Your task to perform on an android device: toggle pop-ups in chrome Image 0: 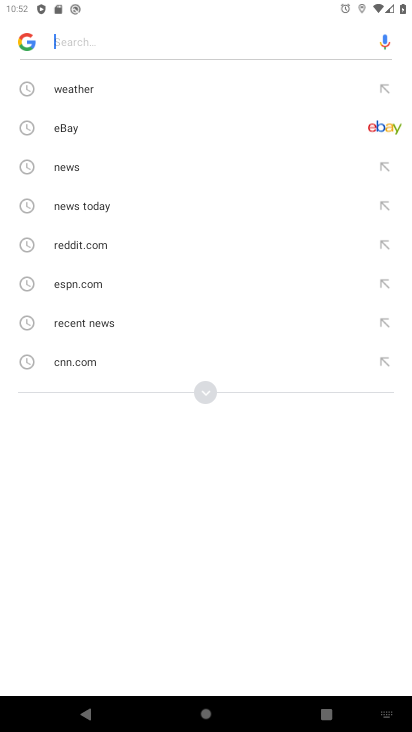
Step 0: press home button
Your task to perform on an android device: toggle pop-ups in chrome Image 1: 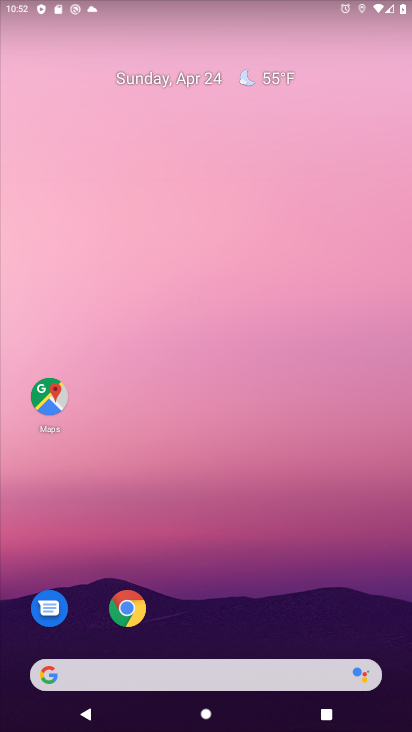
Step 1: click (128, 606)
Your task to perform on an android device: toggle pop-ups in chrome Image 2: 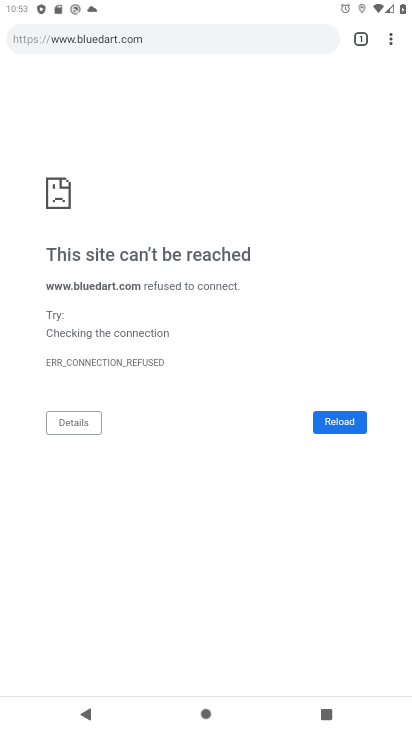
Step 2: click (392, 41)
Your task to perform on an android device: toggle pop-ups in chrome Image 3: 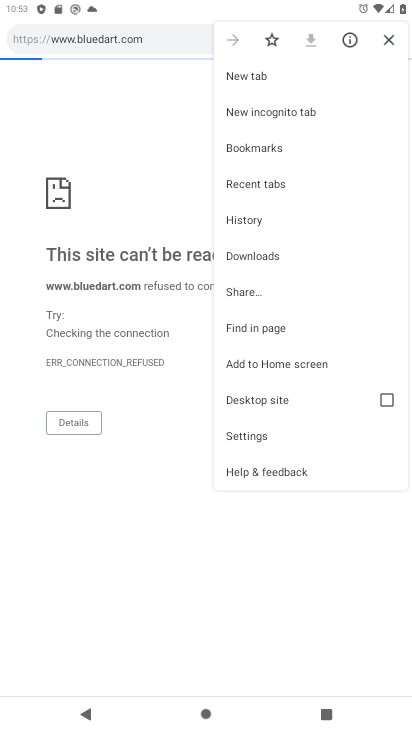
Step 3: click (250, 435)
Your task to perform on an android device: toggle pop-ups in chrome Image 4: 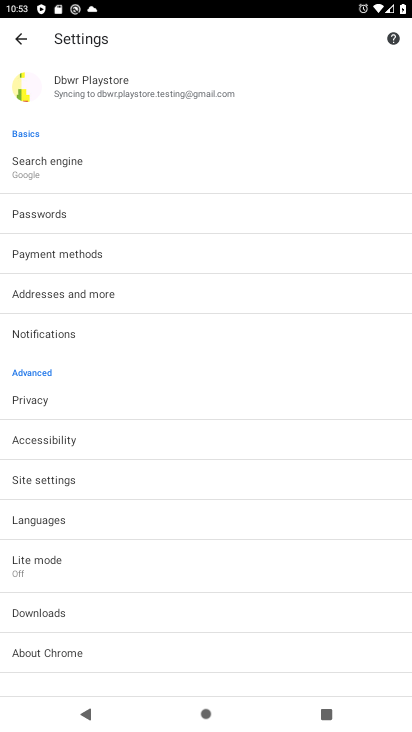
Step 4: click (52, 478)
Your task to perform on an android device: toggle pop-ups in chrome Image 5: 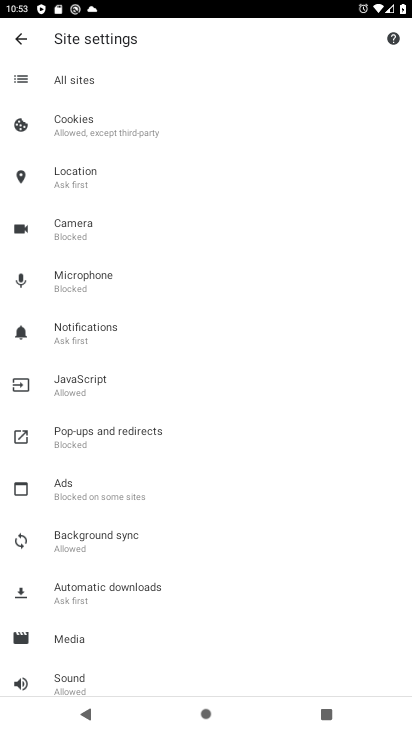
Step 5: click (89, 434)
Your task to perform on an android device: toggle pop-ups in chrome Image 6: 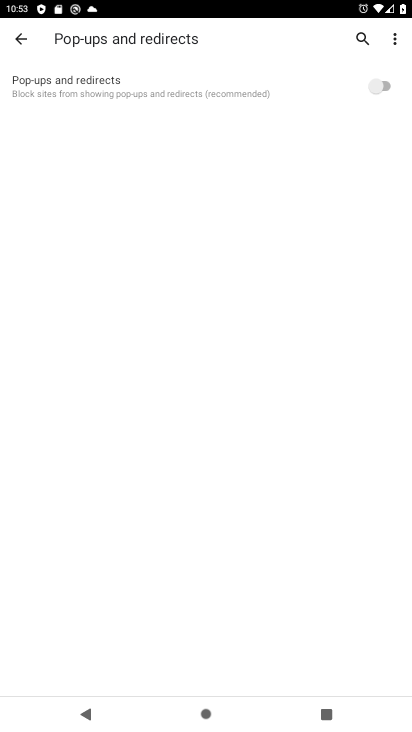
Step 6: click (384, 85)
Your task to perform on an android device: toggle pop-ups in chrome Image 7: 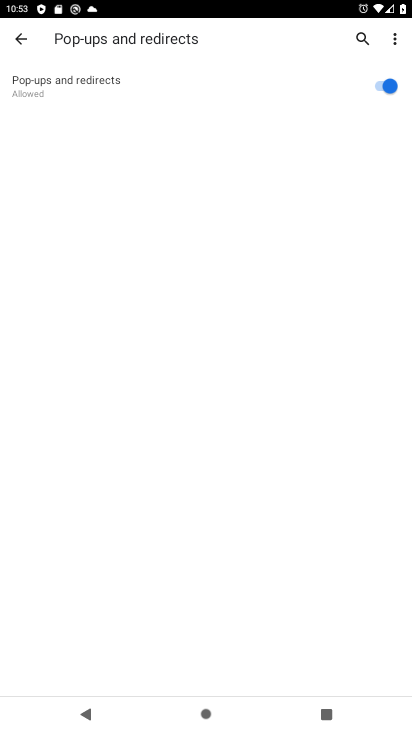
Step 7: task complete